Your task to perform on an android device: Open the contacts Image 0: 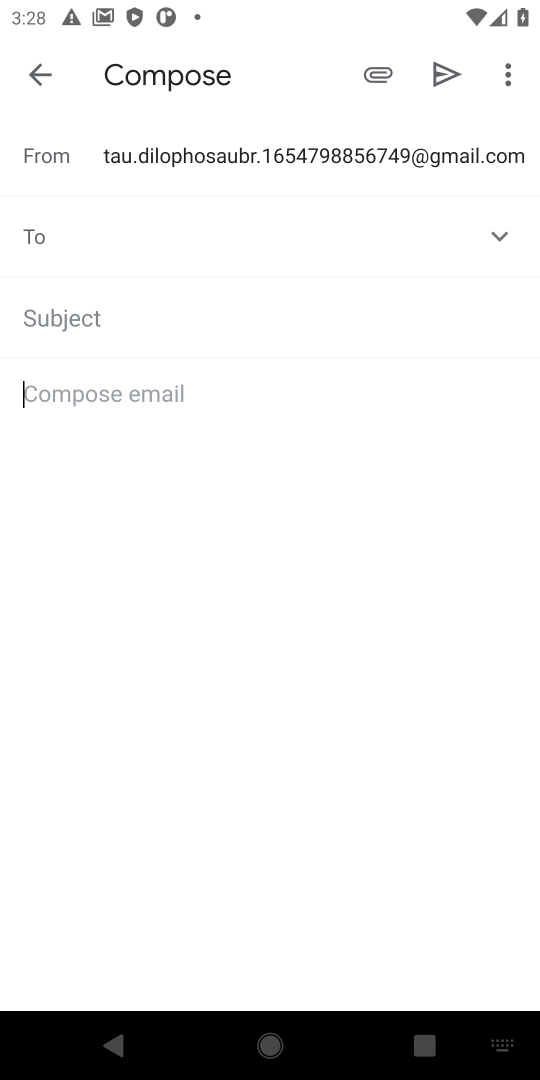
Step 0: press home button
Your task to perform on an android device: Open the contacts Image 1: 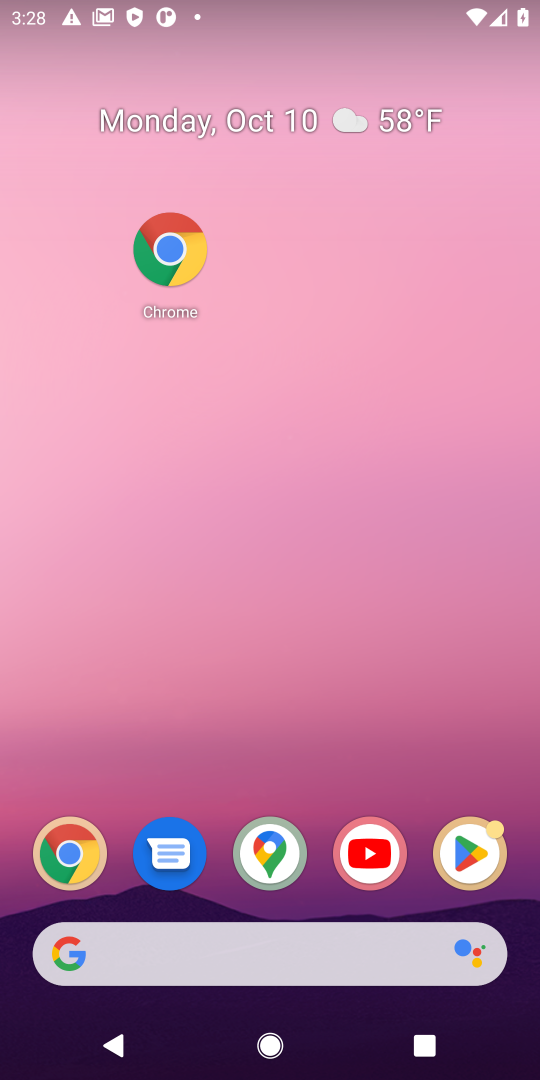
Step 1: drag from (315, 895) to (374, 258)
Your task to perform on an android device: Open the contacts Image 2: 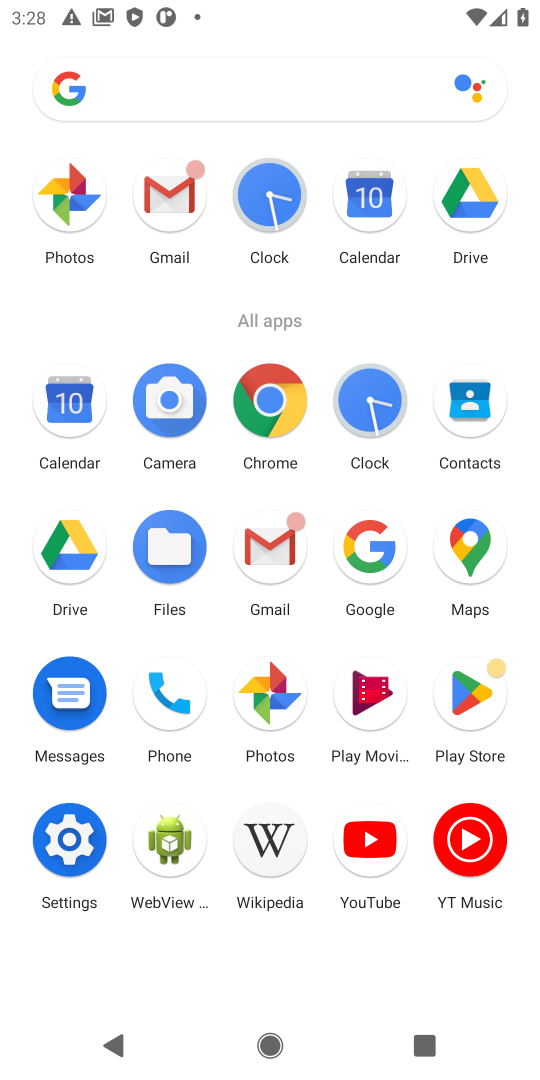
Step 2: click (473, 408)
Your task to perform on an android device: Open the contacts Image 3: 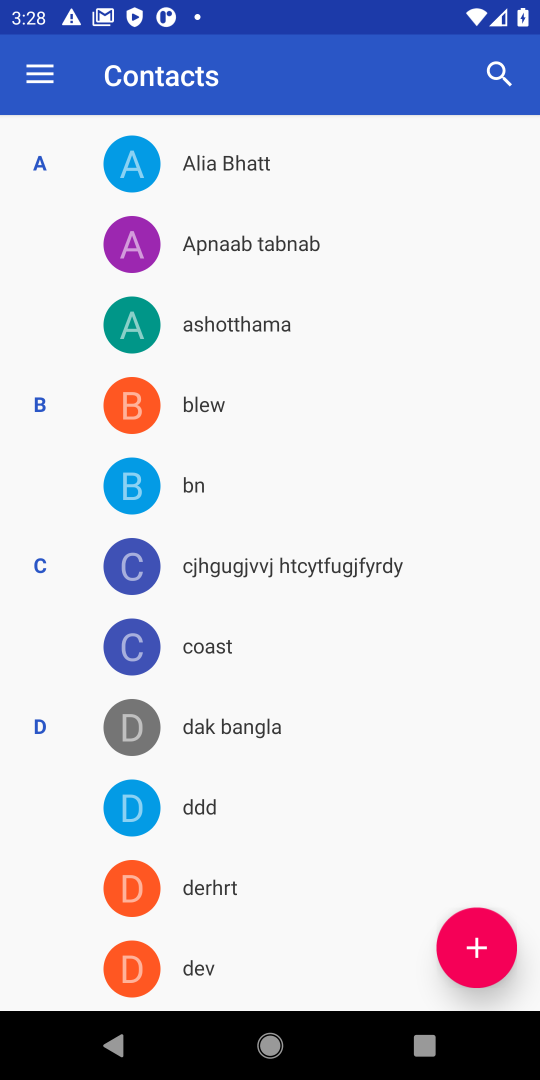
Step 3: task complete